Your task to perform on an android device: Search for pizza restaurants on Maps Image 0: 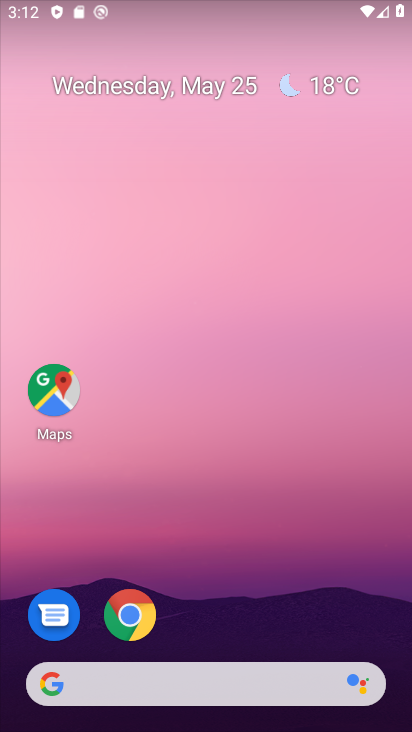
Step 0: click (249, 244)
Your task to perform on an android device: Search for pizza restaurants on Maps Image 1: 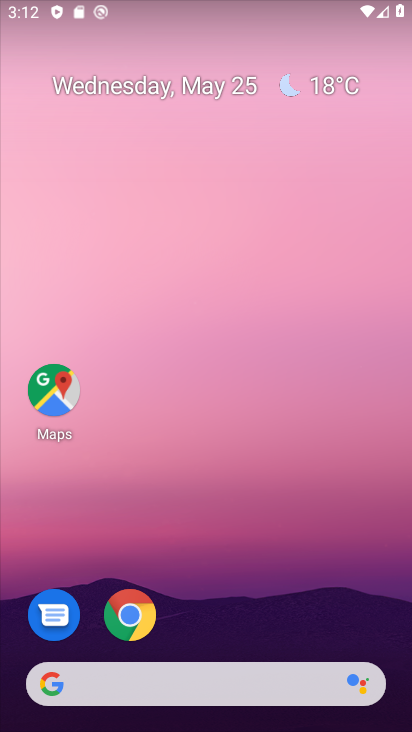
Step 1: drag from (321, 589) to (274, 258)
Your task to perform on an android device: Search for pizza restaurants on Maps Image 2: 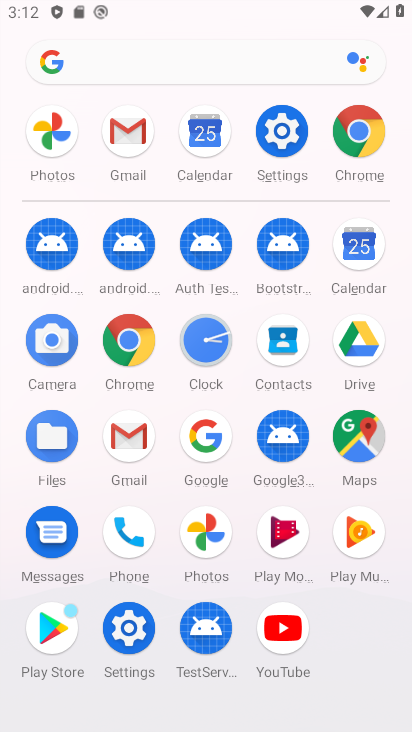
Step 2: click (350, 436)
Your task to perform on an android device: Search for pizza restaurants on Maps Image 3: 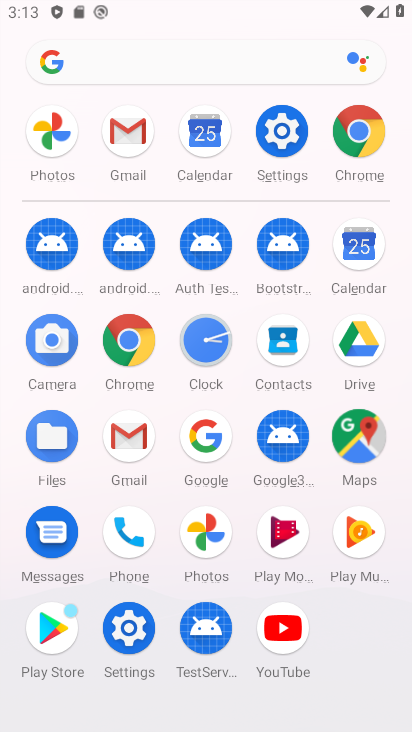
Step 3: click (350, 436)
Your task to perform on an android device: Search for pizza restaurants on Maps Image 4: 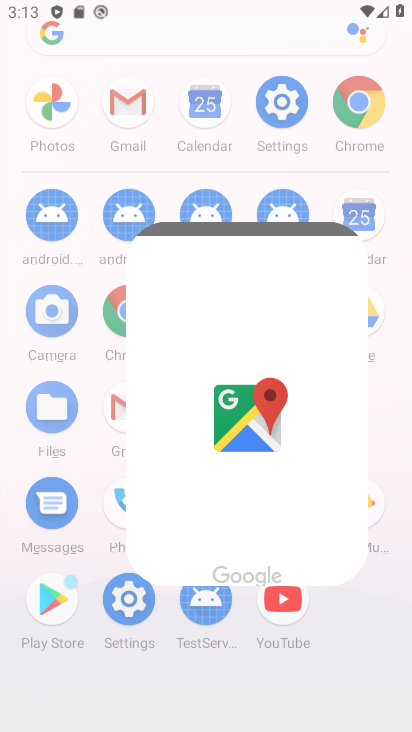
Step 4: click (350, 436)
Your task to perform on an android device: Search for pizza restaurants on Maps Image 5: 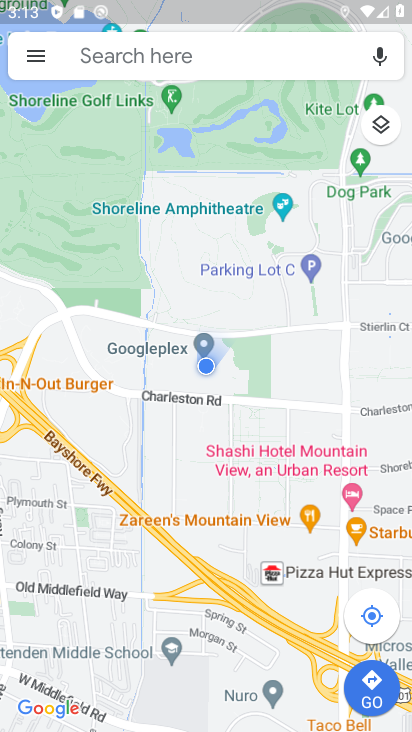
Step 5: click (102, 53)
Your task to perform on an android device: Search for pizza restaurants on Maps Image 6: 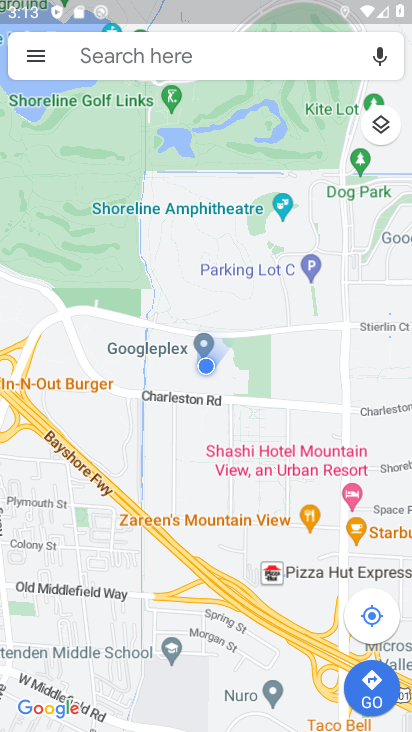
Step 6: click (96, 51)
Your task to perform on an android device: Search for pizza restaurants on Maps Image 7: 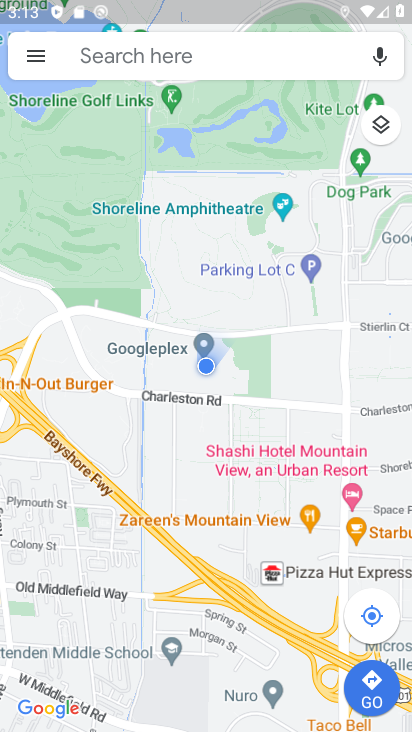
Step 7: click (97, 51)
Your task to perform on an android device: Search for pizza restaurants on Maps Image 8: 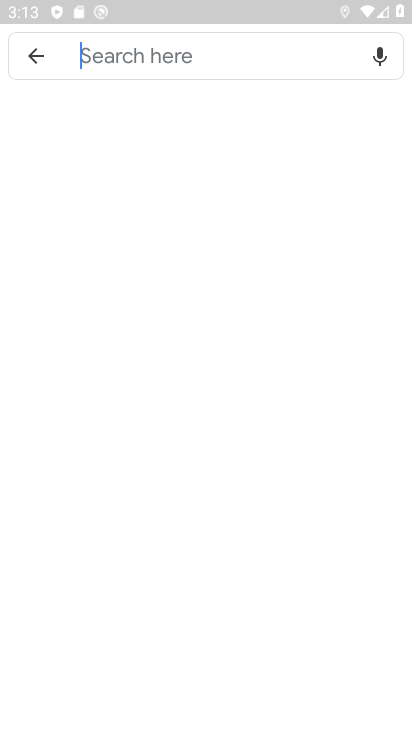
Step 8: click (101, 55)
Your task to perform on an android device: Search for pizza restaurants on Maps Image 9: 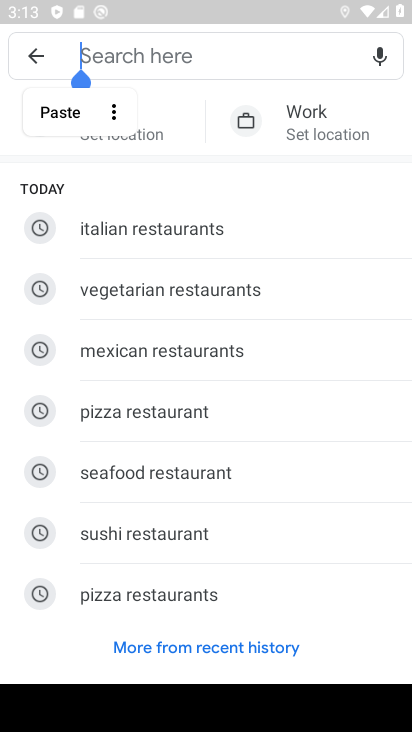
Step 9: click (117, 415)
Your task to perform on an android device: Search for pizza restaurants on Maps Image 10: 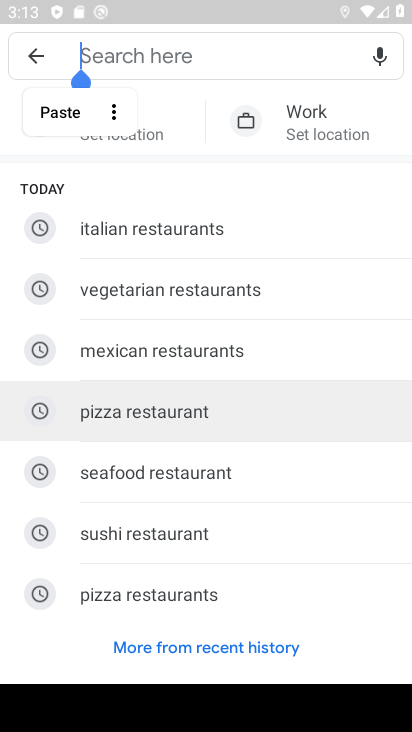
Step 10: click (118, 413)
Your task to perform on an android device: Search for pizza restaurants on Maps Image 11: 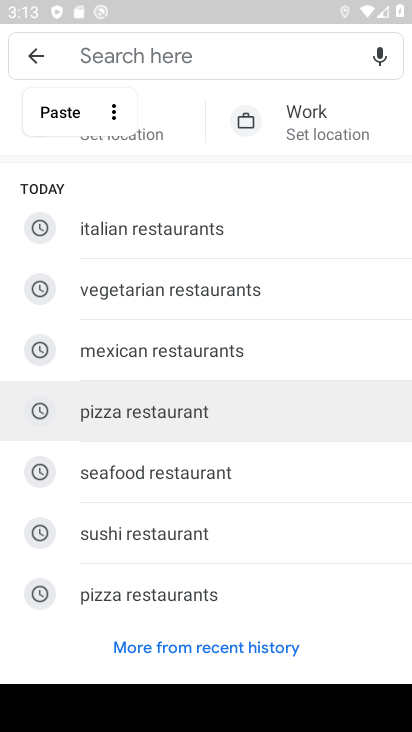
Step 11: click (119, 413)
Your task to perform on an android device: Search for pizza restaurants on Maps Image 12: 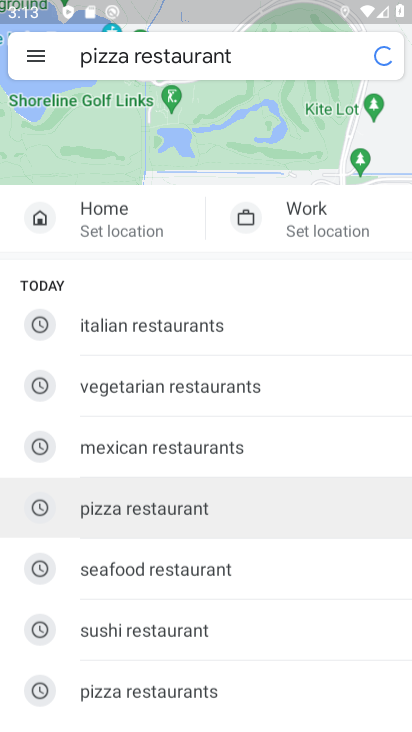
Step 12: click (125, 384)
Your task to perform on an android device: Search for pizza restaurants on Maps Image 13: 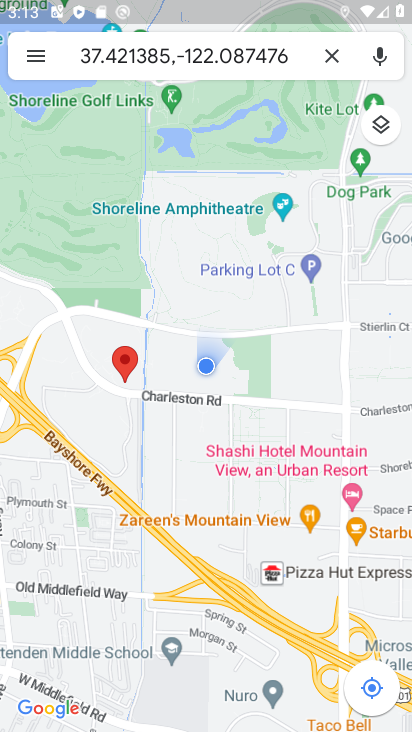
Step 13: task complete